Your task to perform on an android device: open chrome and create a bookmark for the current page Image 0: 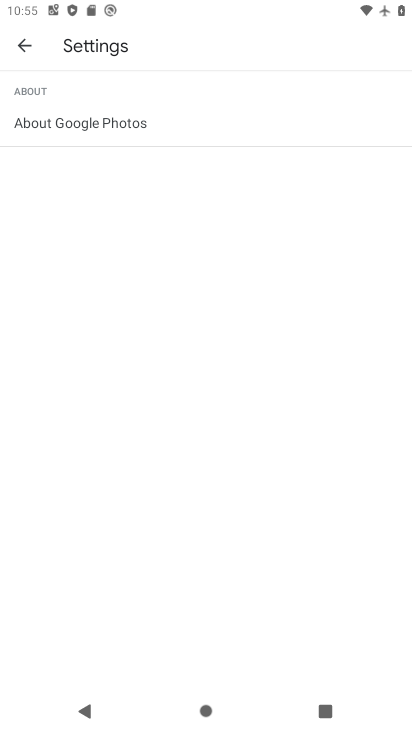
Step 0: press home button
Your task to perform on an android device: open chrome and create a bookmark for the current page Image 1: 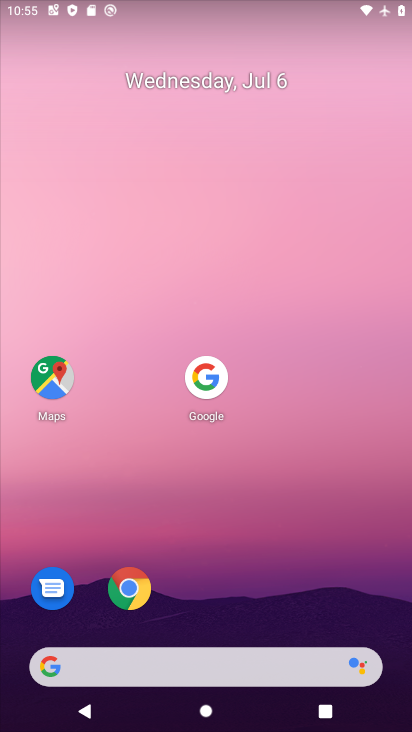
Step 1: click (132, 596)
Your task to perform on an android device: open chrome and create a bookmark for the current page Image 2: 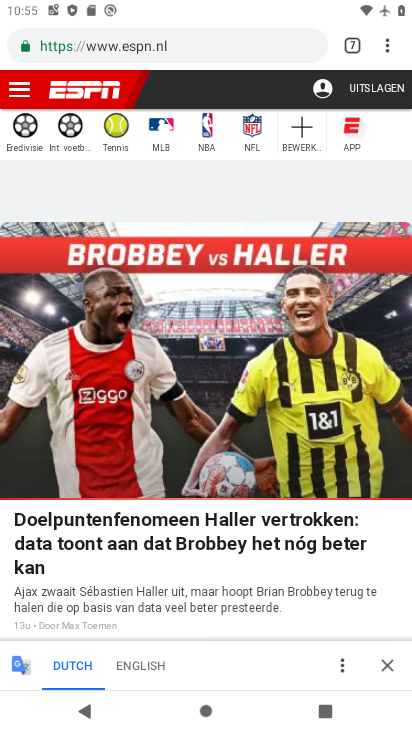
Step 2: click (386, 59)
Your task to perform on an android device: open chrome and create a bookmark for the current page Image 3: 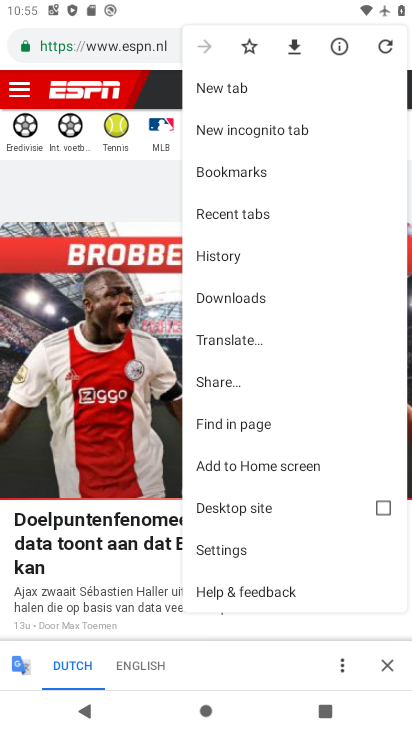
Step 3: click (250, 43)
Your task to perform on an android device: open chrome and create a bookmark for the current page Image 4: 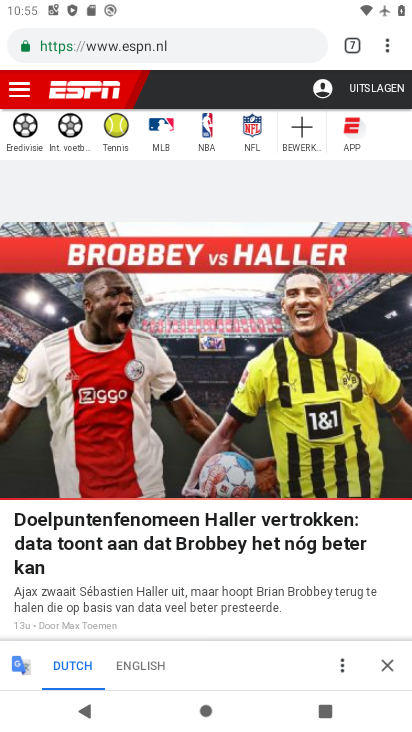
Step 4: task complete